Your task to perform on an android device: Search for seafood restaurants on Google Maps Image 0: 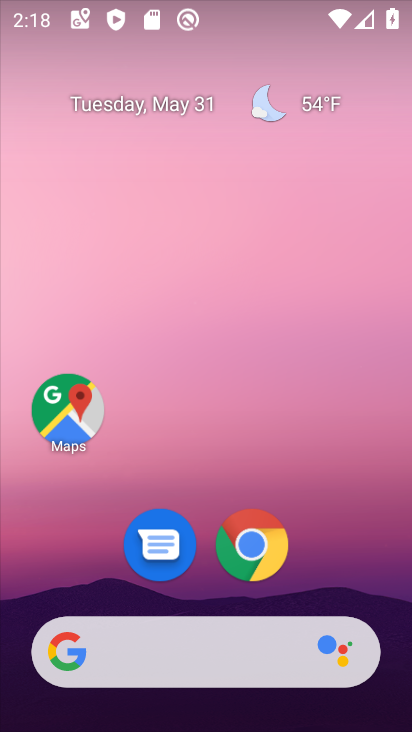
Step 0: click (49, 396)
Your task to perform on an android device: Search for seafood restaurants on Google Maps Image 1: 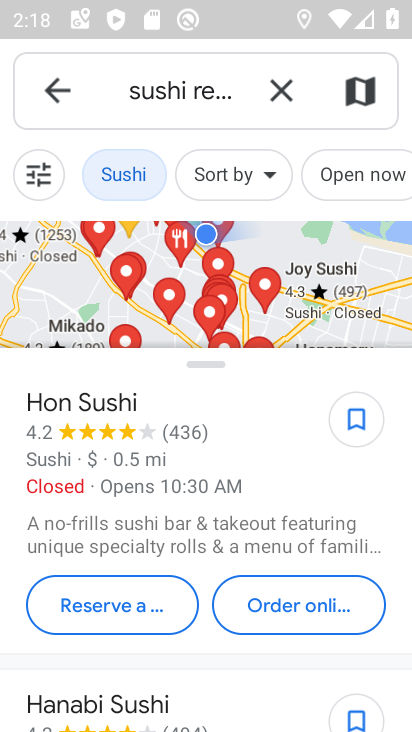
Step 1: click (285, 89)
Your task to perform on an android device: Search for seafood restaurants on Google Maps Image 2: 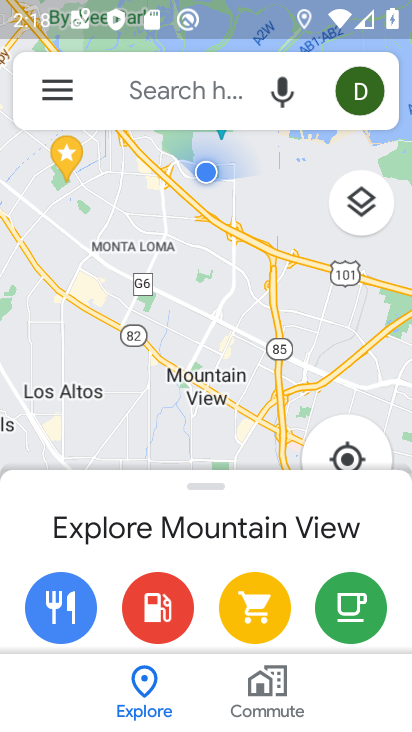
Step 2: click (231, 97)
Your task to perform on an android device: Search for seafood restaurants on Google Maps Image 3: 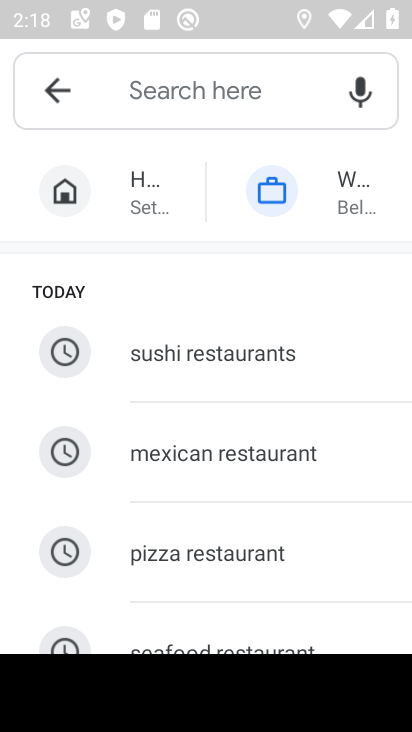
Step 3: drag from (385, 557) to (353, 374)
Your task to perform on an android device: Search for seafood restaurants on Google Maps Image 4: 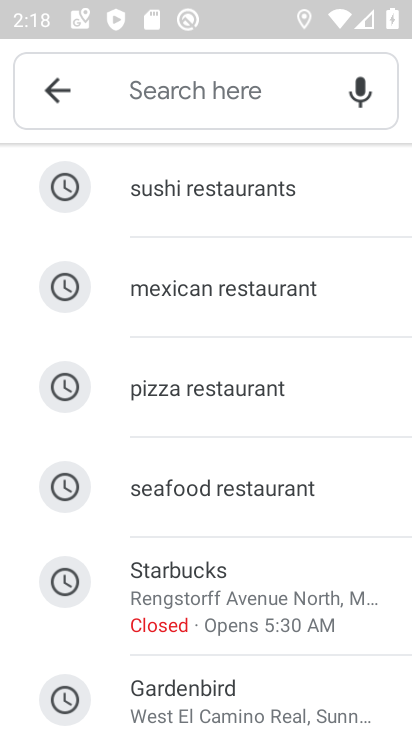
Step 4: click (256, 487)
Your task to perform on an android device: Search for seafood restaurants on Google Maps Image 5: 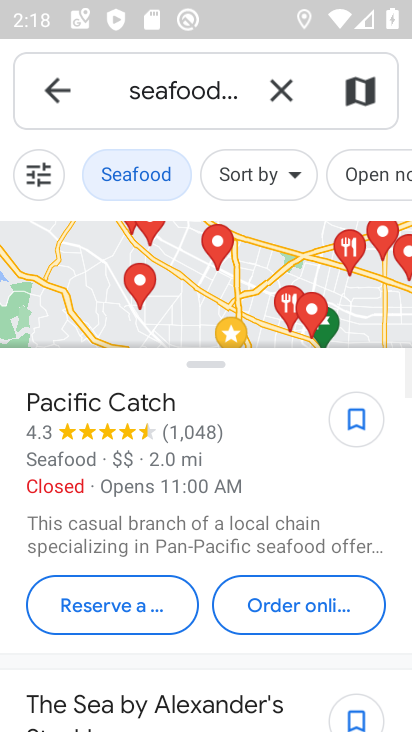
Step 5: task complete